Your task to perform on an android device: create a new album in the google photos Image 0: 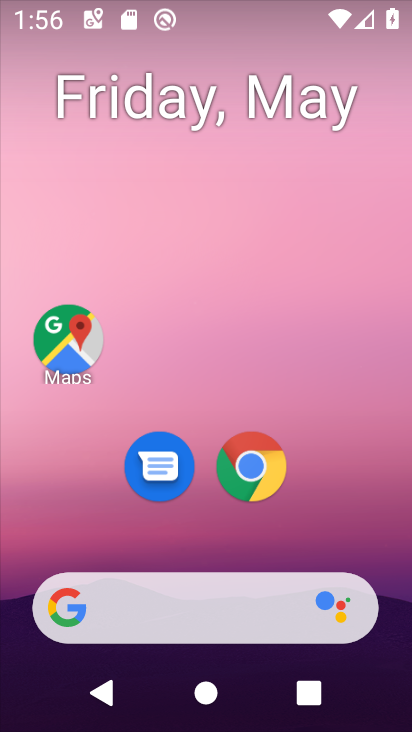
Step 0: drag from (332, 559) to (300, 125)
Your task to perform on an android device: create a new album in the google photos Image 1: 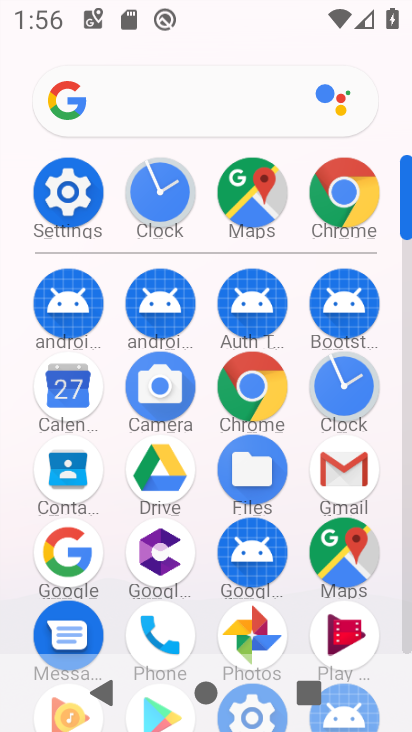
Step 1: drag from (393, 663) to (349, 319)
Your task to perform on an android device: create a new album in the google photos Image 2: 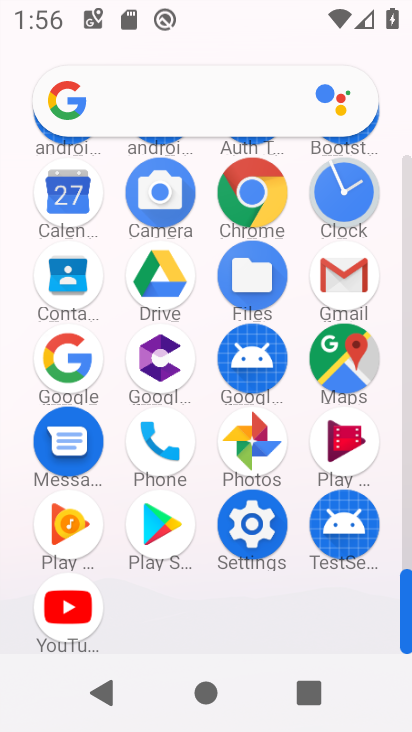
Step 2: click (271, 443)
Your task to perform on an android device: create a new album in the google photos Image 3: 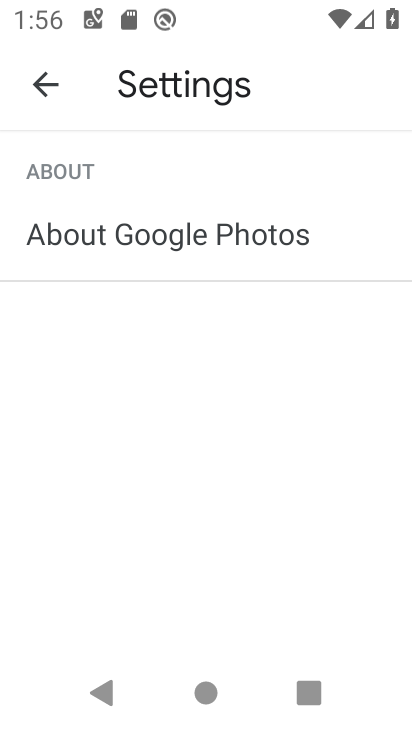
Step 3: click (56, 81)
Your task to perform on an android device: create a new album in the google photos Image 4: 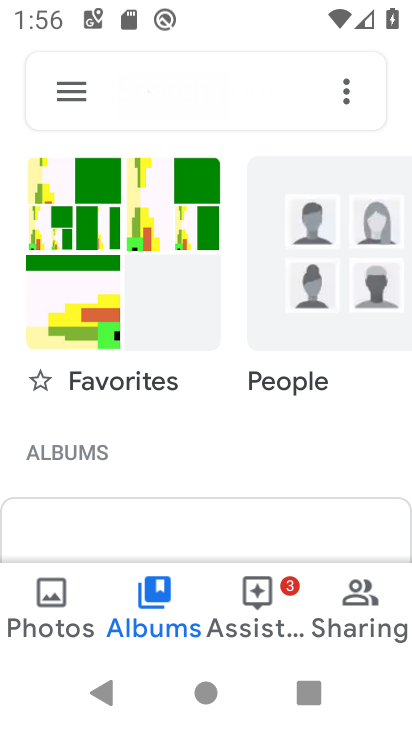
Step 4: task complete